Your task to perform on an android device: delete browsing data in the chrome app Image 0: 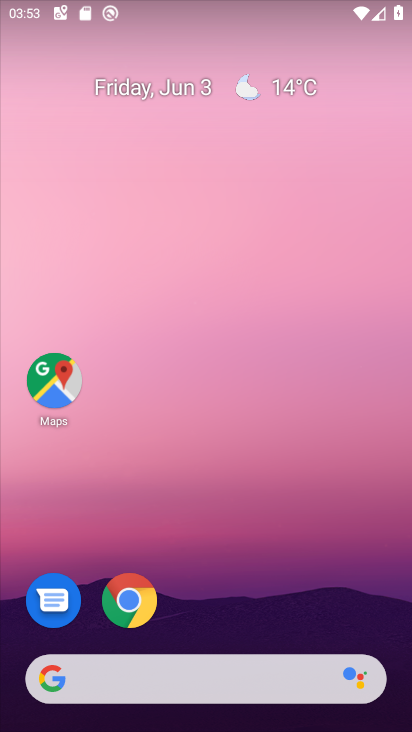
Step 0: click (127, 601)
Your task to perform on an android device: delete browsing data in the chrome app Image 1: 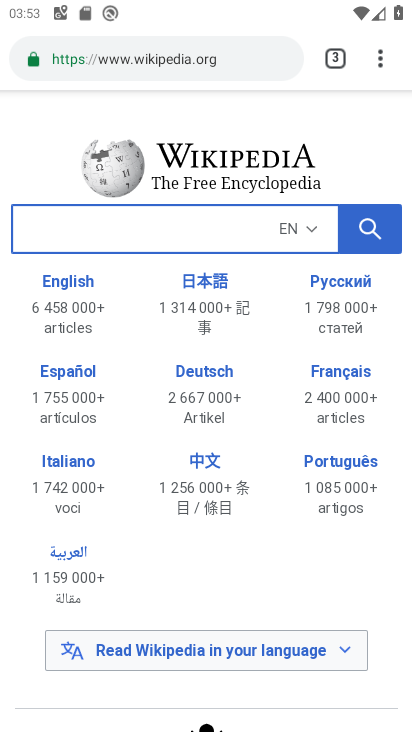
Step 1: drag from (379, 56) to (206, 336)
Your task to perform on an android device: delete browsing data in the chrome app Image 2: 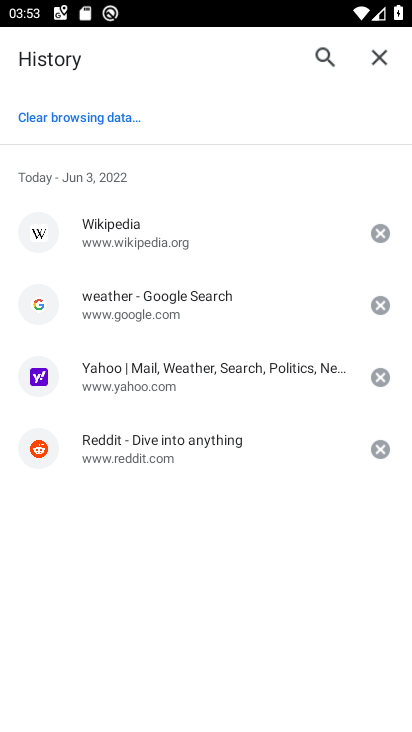
Step 2: click (117, 112)
Your task to perform on an android device: delete browsing data in the chrome app Image 3: 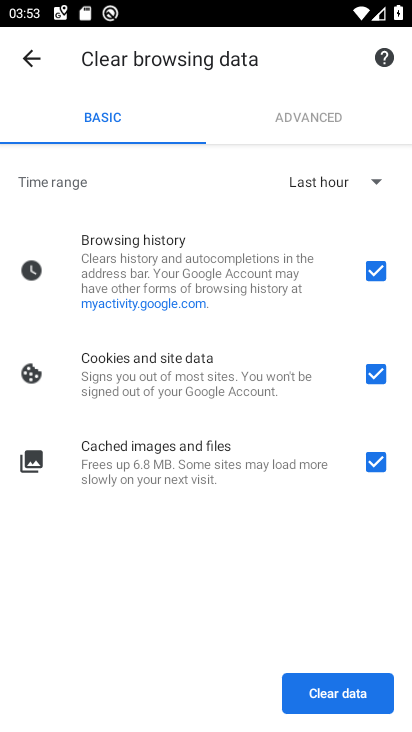
Step 3: click (348, 167)
Your task to perform on an android device: delete browsing data in the chrome app Image 4: 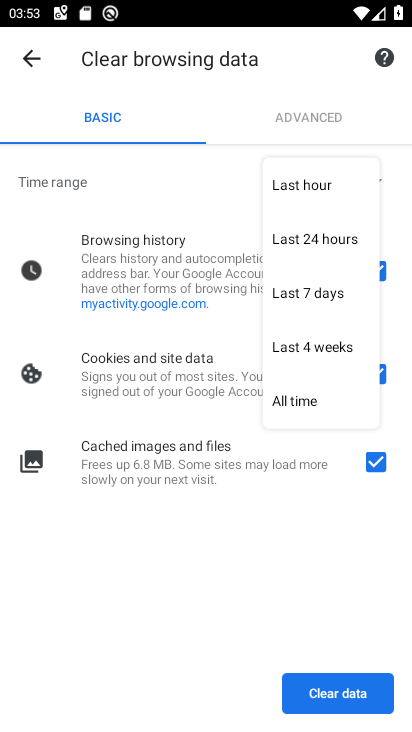
Step 4: click (324, 402)
Your task to perform on an android device: delete browsing data in the chrome app Image 5: 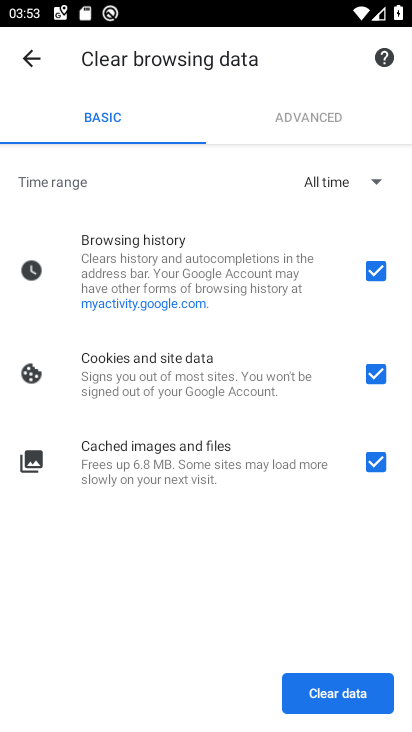
Step 5: click (335, 699)
Your task to perform on an android device: delete browsing data in the chrome app Image 6: 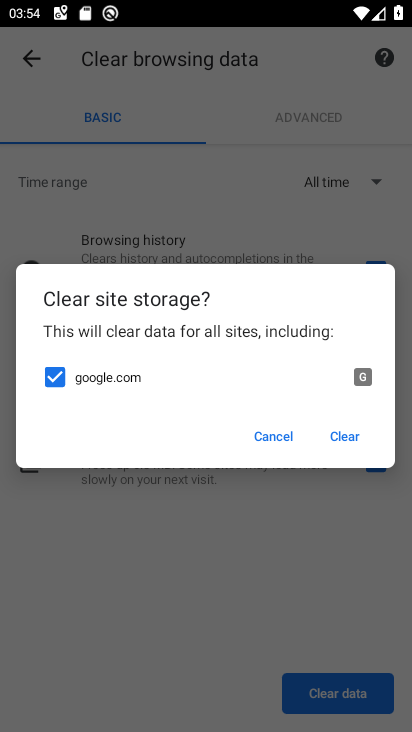
Step 6: click (343, 439)
Your task to perform on an android device: delete browsing data in the chrome app Image 7: 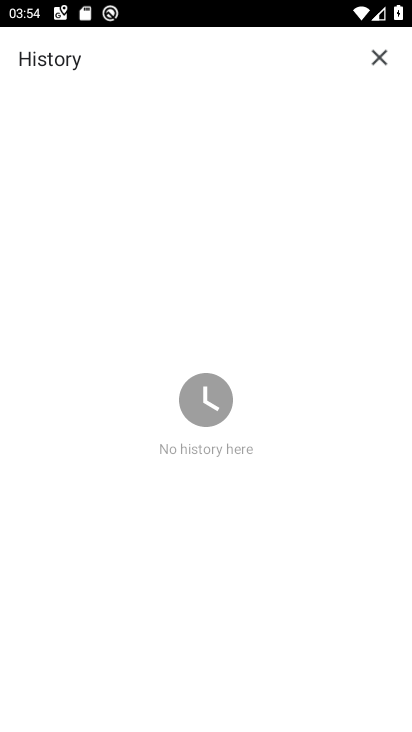
Step 7: task complete